Your task to perform on an android device: check android version Image 0: 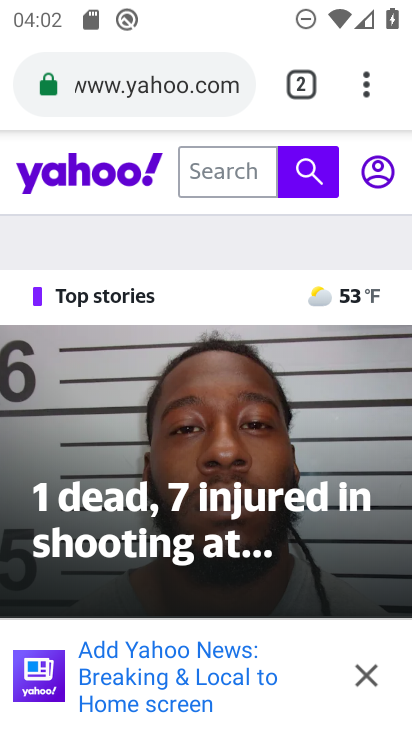
Step 0: press home button
Your task to perform on an android device: check android version Image 1: 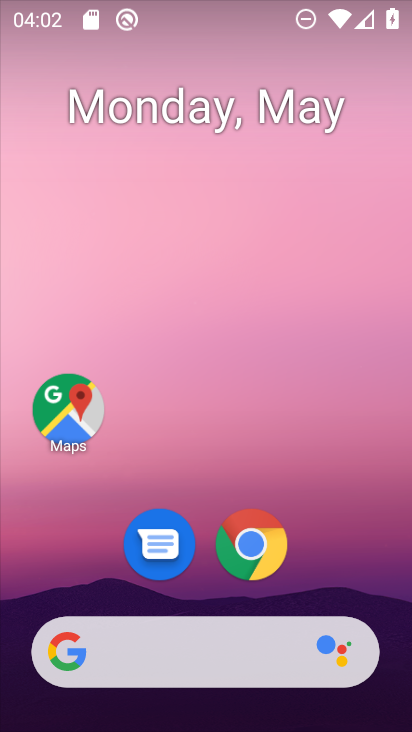
Step 1: drag from (368, 558) to (373, 139)
Your task to perform on an android device: check android version Image 2: 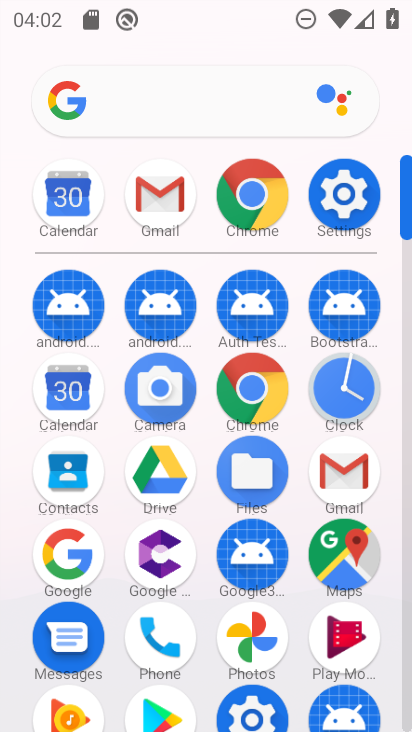
Step 2: click (347, 218)
Your task to perform on an android device: check android version Image 3: 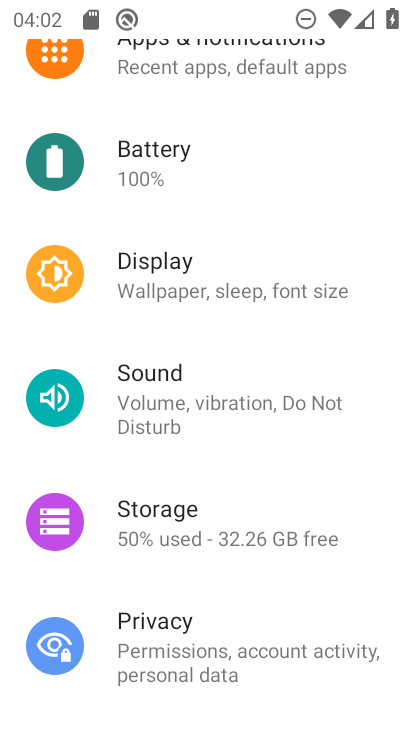
Step 3: drag from (362, 181) to (362, 267)
Your task to perform on an android device: check android version Image 4: 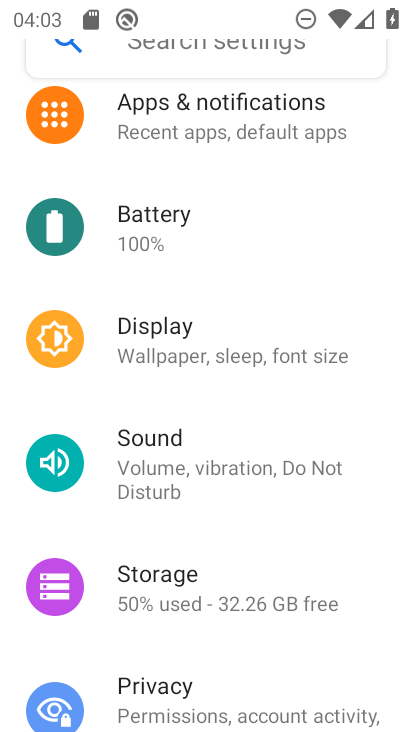
Step 4: drag from (364, 148) to (368, 270)
Your task to perform on an android device: check android version Image 5: 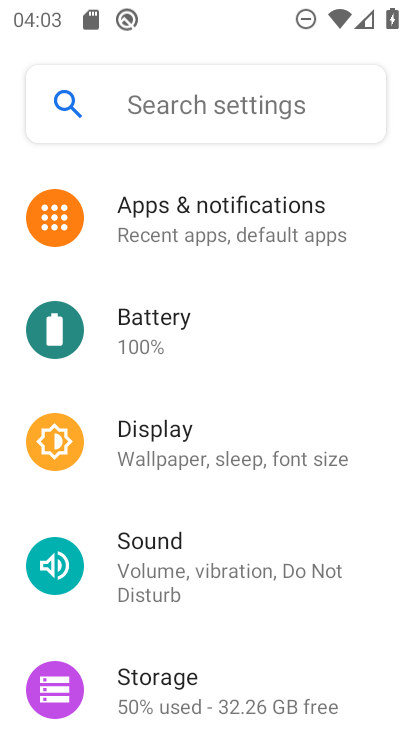
Step 5: drag from (371, 164) to (381, 327)
Your task to perform on an android device: check android version Image 6: 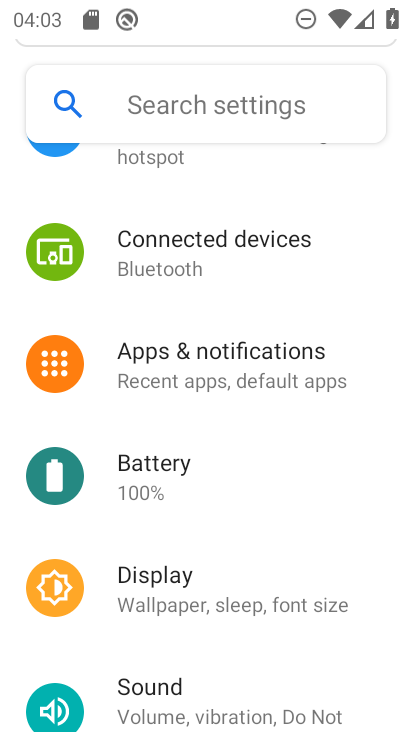
Step 6: drag from (361, 181) to (355, 403)
Your task to perform on an android device: check android version Image 7: 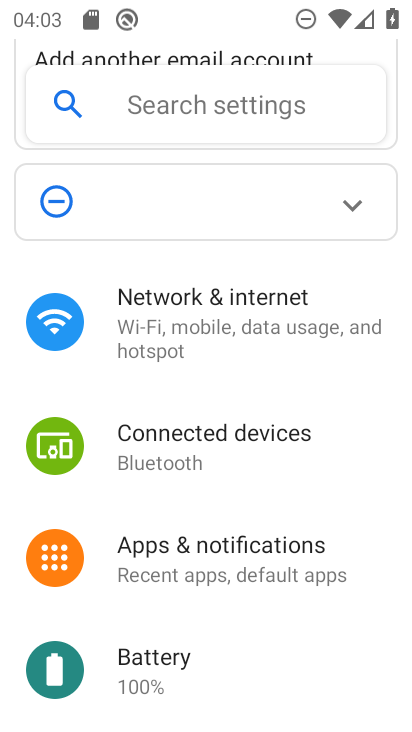
Step 7: drag from (368, 442) to (355, 337)
Your task to perform on an android device: check android version Image 8: 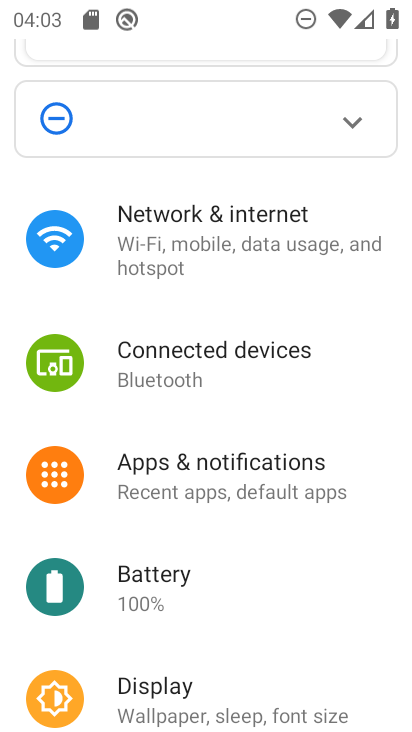
Step 8: drag from (367, 438) to (364, 322)
Your task to perform on an android device: check android version Image 9: 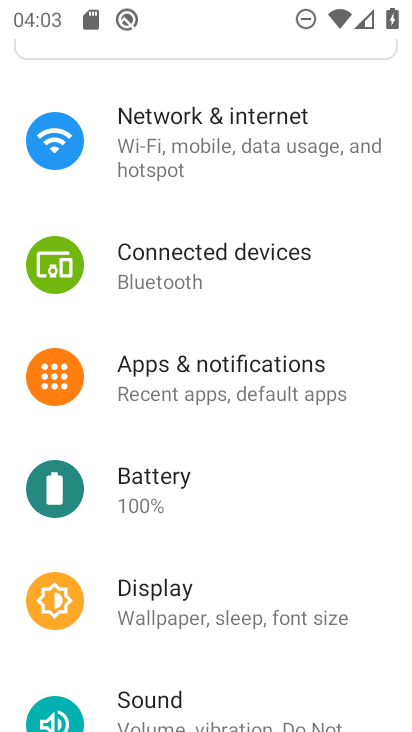
Step 9: drag from (364, 419) to (359, 309)
Your task to perform on an android device: check android version Image 10: 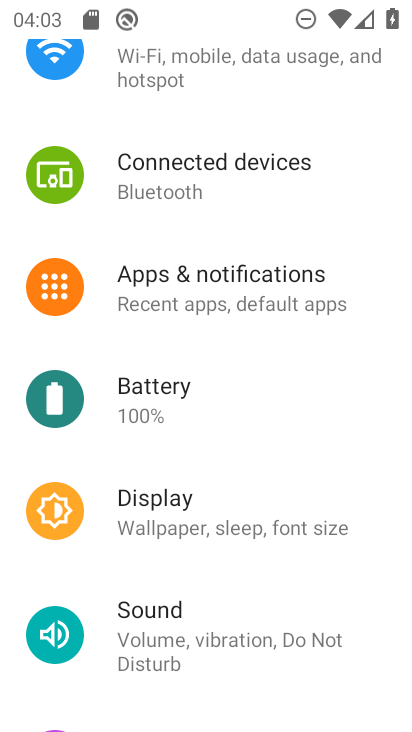
Step 10: drag from (364, 457) to (358, 321)
Your task to perform on an android device: check android version Image 11: 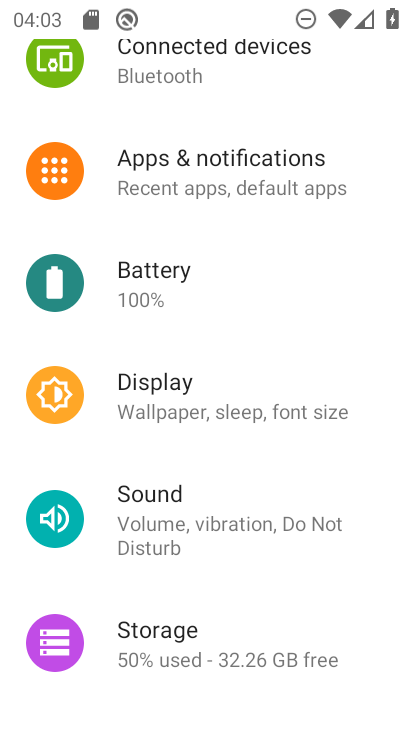
Step 11: drag from (354, 461) to (351, 333)
Your task to perform on an android device: check android version Image 12: 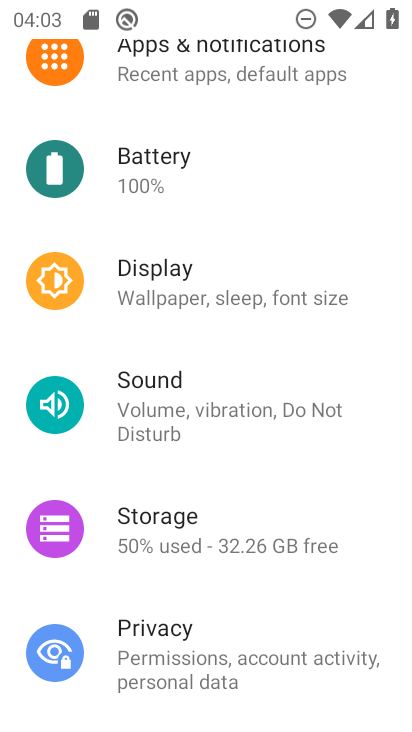
Step 12: drag from (364, 472) to (369, 351)
Your task to perform on an android device: check android version Image 13: 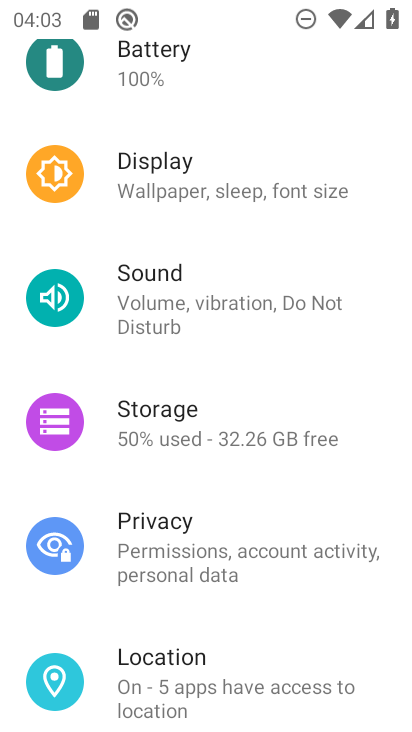
Step 13: drag from (375, 481) to (366, 362)
Your task to perform on an android device: check android version Image 14: 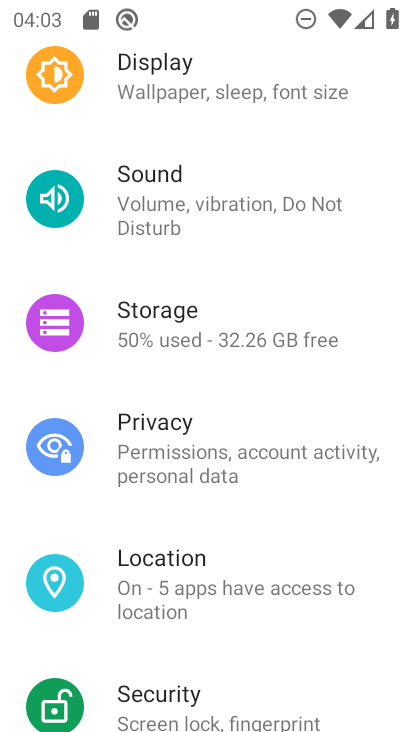
Step 14: drag from (375, 504) to (370, 380)
Your task to perform on an android device: check android version Image 15: 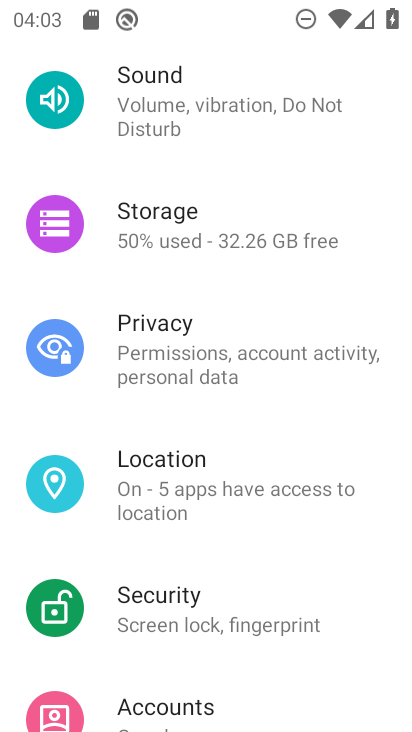
Step 15: drag from (367, 531) to (364, 384)
Your task to perform on an android device: check android version Image 16: 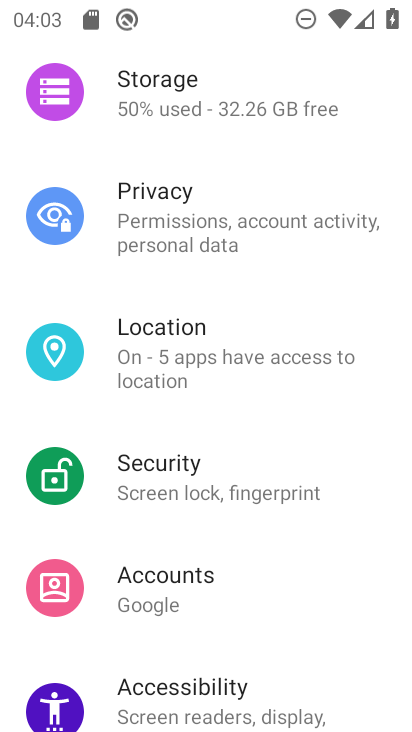
Step 16: drag from (367, 529) to (370, 356)
Your task to perform on an android device: check android version Image 17: 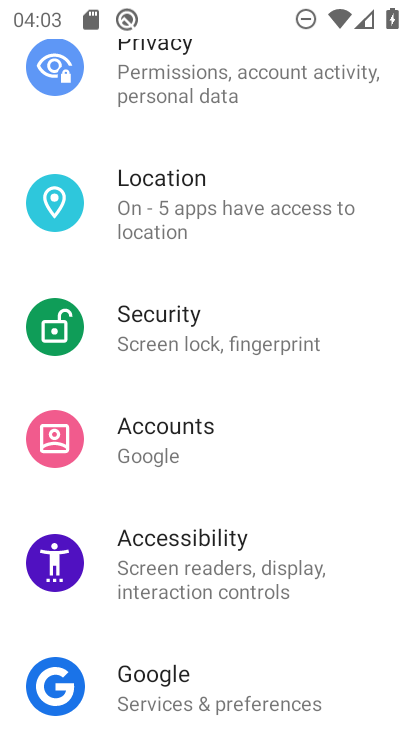
Step 17: drag from (362, 583) to (359, 394)
Your task to perform on an android device: check android version Image 18: 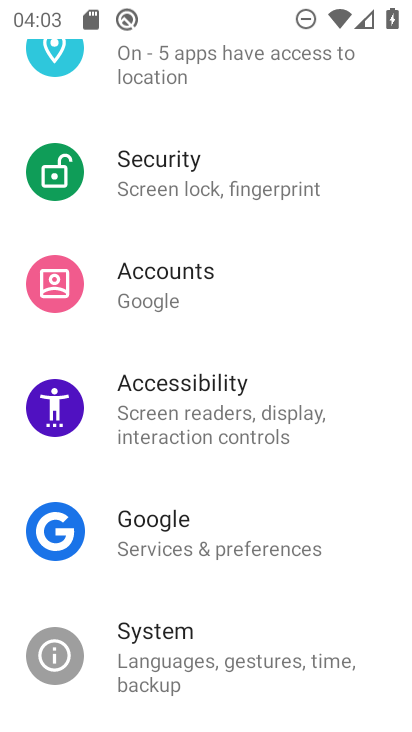
Step 18: drag from (348, 616) to (350, 430)
Your task to perform on an android device: check android version Image 19: 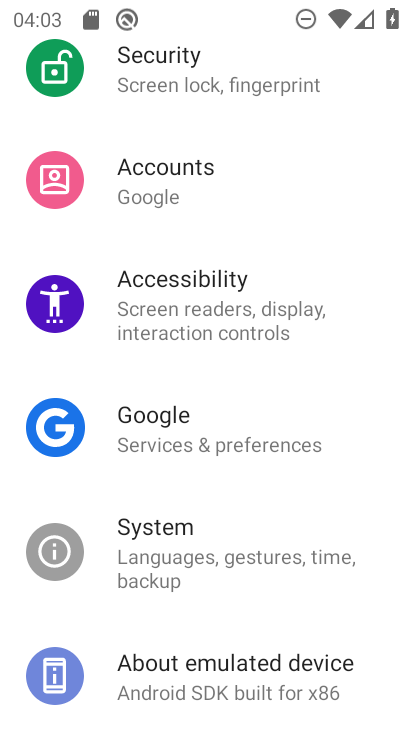
Step 19: click (329, 564)
Your task to perform on an android device: check android version Image 20: 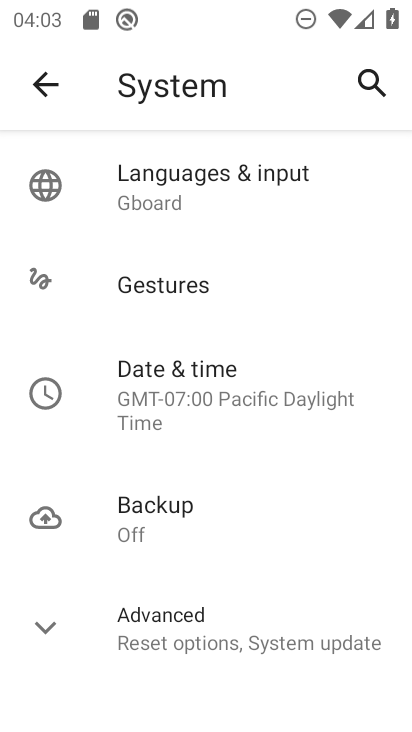
Step 20: click (305, 642)
Your task to perform on an android device: check android version Image 21: 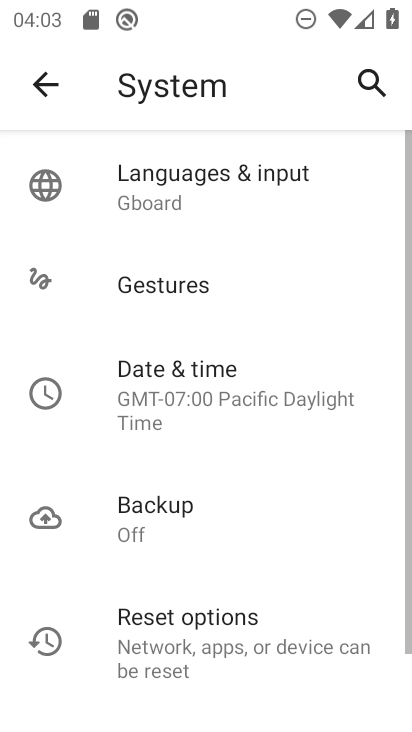
Step 21: drag from (318, 581) to (315, 377)
Your task to perform on an android device: check android version Image 22: 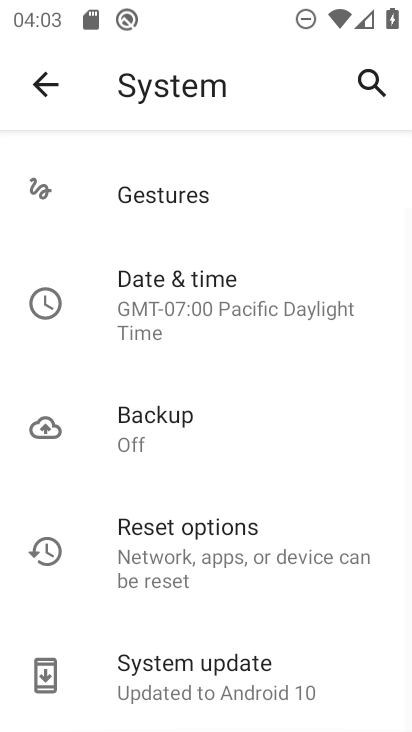
Step 22: click (275, 673)
Your task to perform on an android device: check android version Image 23: 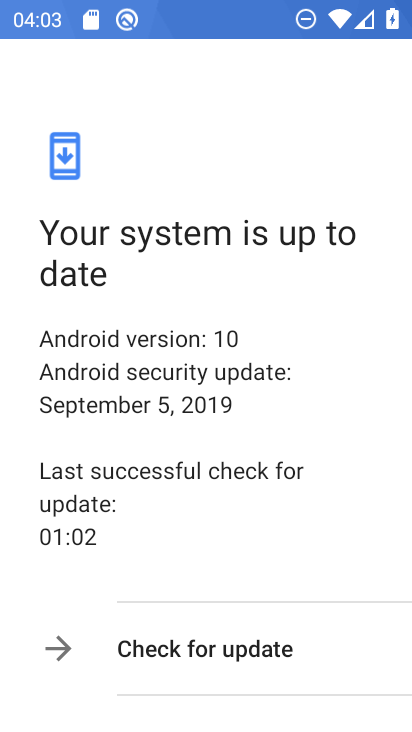
Step 23: task complete